Your task to perform on an android device: turn on priority inbox in the gmail app Image 0: 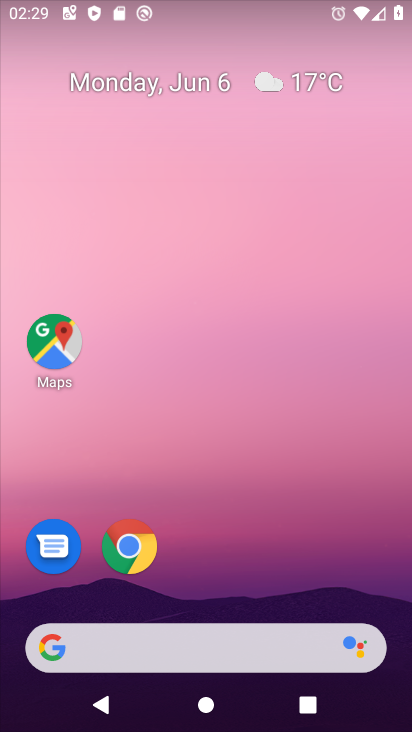
Step 0: drag from (217, 580) to (230, 292)
Your task to perform on an android device: turn on priority inbox in the gmail app Image 1: 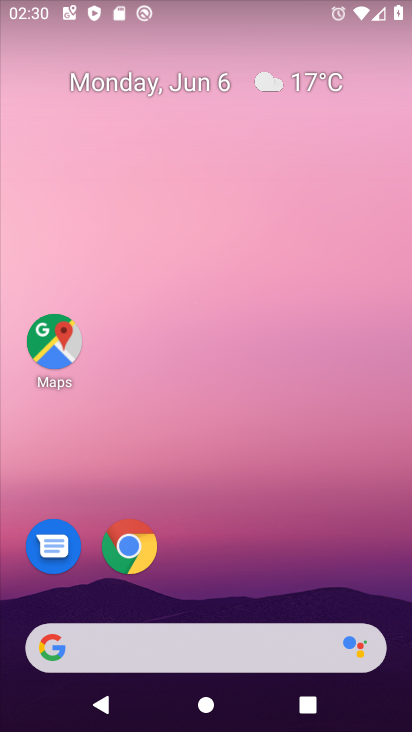
Step 1: drag from (159, 539) to (174, 165)
Your task to perform on an android device: turn on priority inbox in the gmail app Image 2: 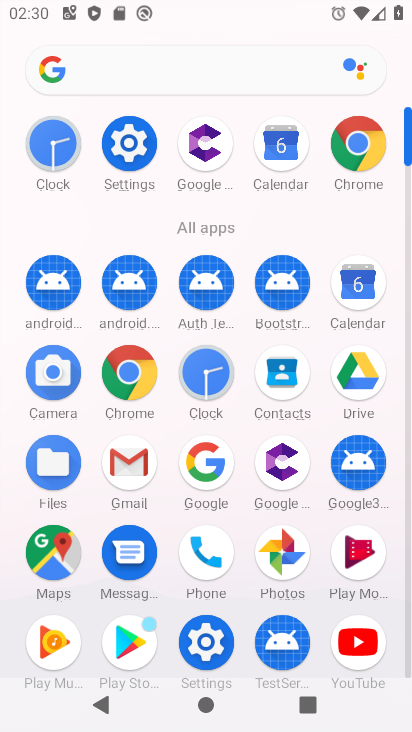
Step 2: click (136, 456)
Your task to perform on an android device: turn on priority inbox in the gmail app Image 3: 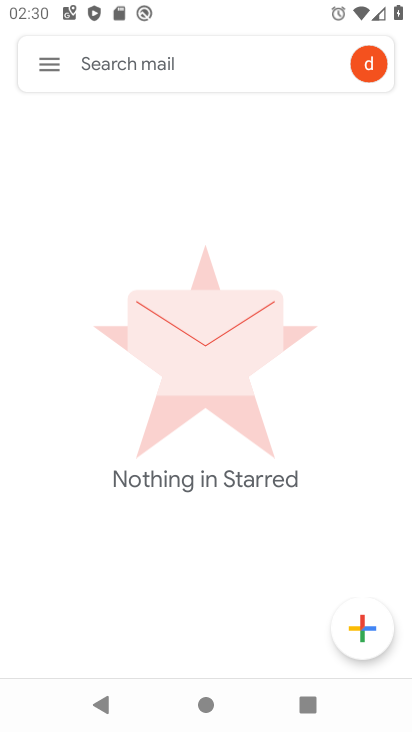
Step 3: click (47, 61)
Your task to perform on an android device: turn on priority inbox in the gmail app Image 4: 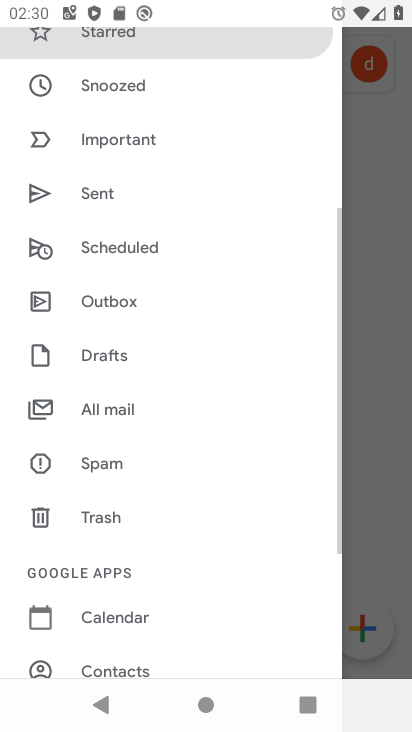
Step 4: drag from (136, 608) to (154, 293)
Your task to perform on an android device: turn on priority inbox in the gmail app Image 5: 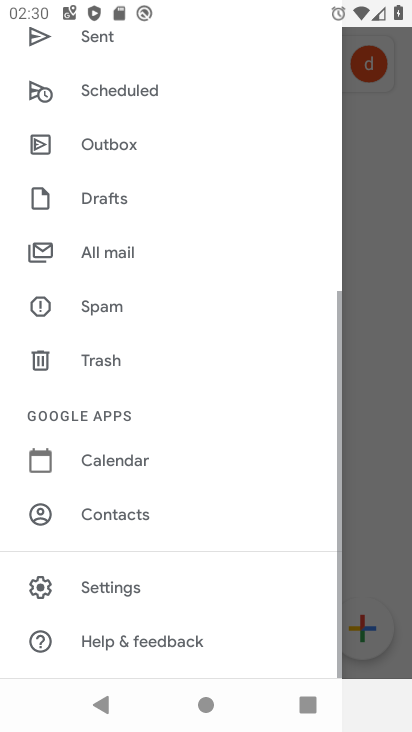
Step 5: click (116, 585)
Your task to perform on an android device: turn on priority inbox in the gmail app Image 6: 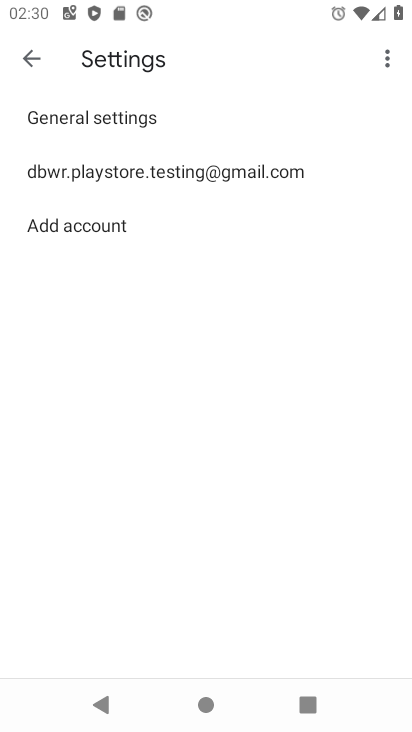
Step 6: click (80, 152)
Your task to perform on an android device: turn on priority inbox in the gmail app Image 7: 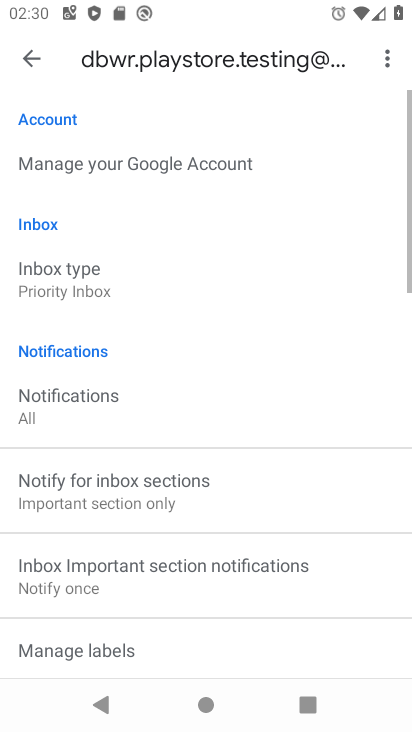
Step 7: click (86, 287)
Your task to perform on an android device: turn on priority inbox in the gmail app Image 8: 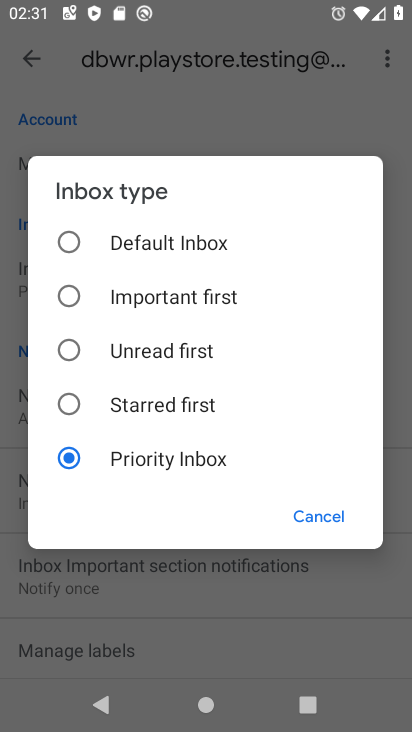
Step 8: task complete